Your task to perform on an android device: turn on location history Image 0: 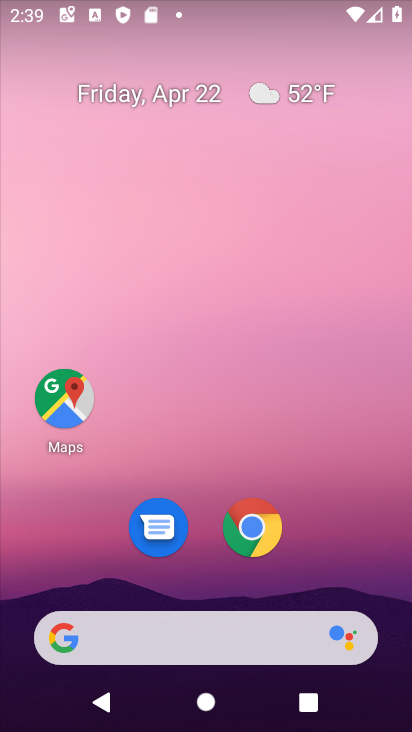
Step 0: drag from (359, 520) to (292, 148)
Your task to perform on an android device: turn on location history Image 1: 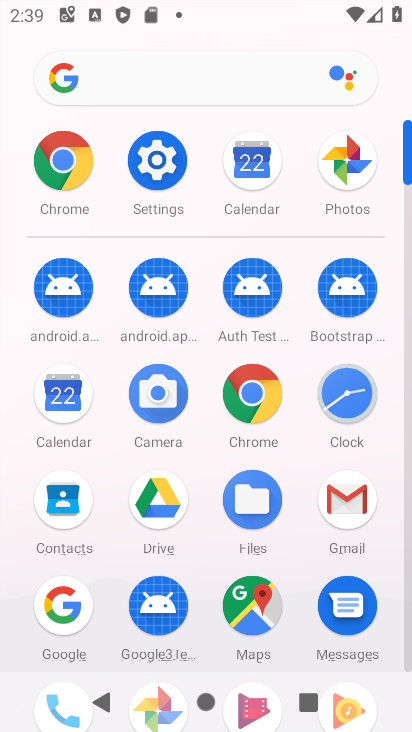
Step 1: click (173, 158)
Your task to perform on an android device: turn on location history Image 2: 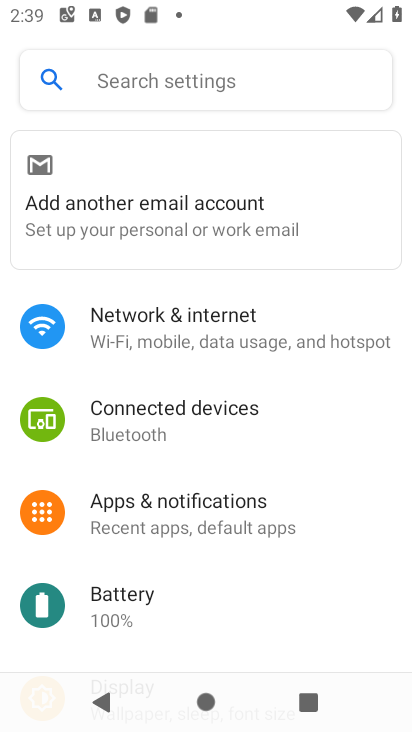
Step 2: drag from (108, 546) to (35, 199)
Your task to perform on an android device: turn on location history Image 3: 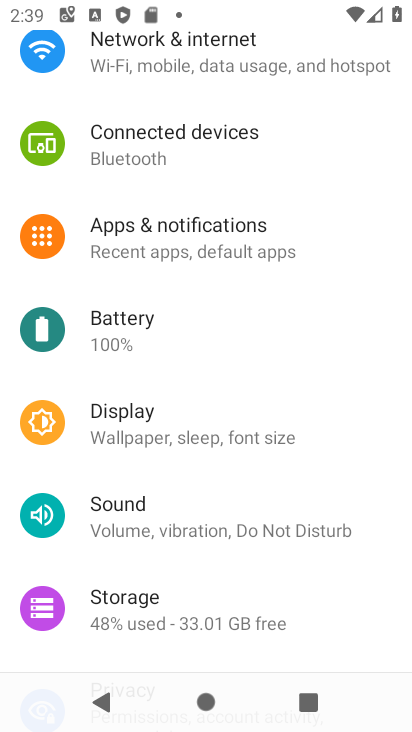
Step 3: drag from (178, 494) to (145, 203)
Your task to perform on an android device: turn on location history Image 4: 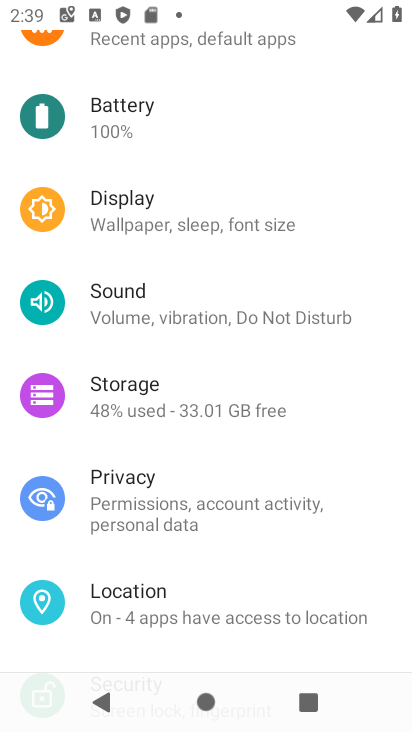
Step 4: drag from (210, 566) to (207, 241)
Your task to perform on an android device: turn on location history Image 5: 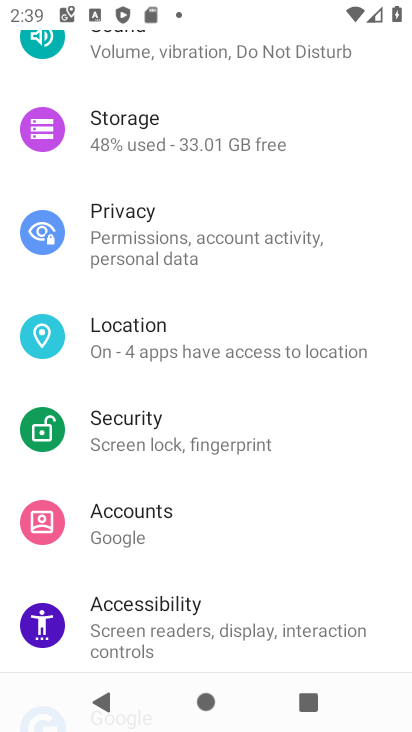
Step 5: click (183, 348)
Your task to perform on an android device: turn on location history Image 6: 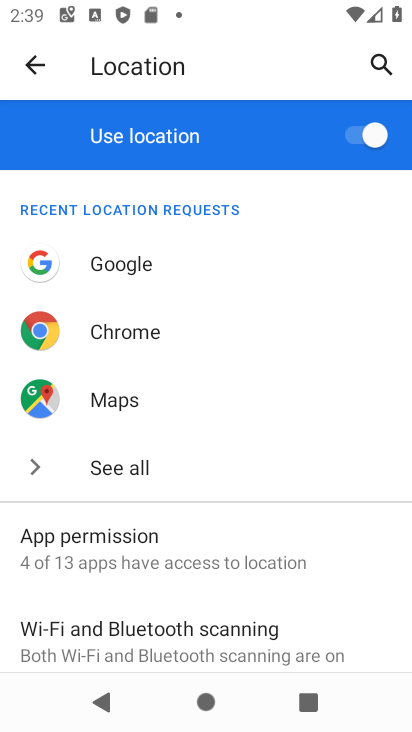
Step 6: task complete